Your task to perform on an android device: allow cookies in the chrome app Image 0: 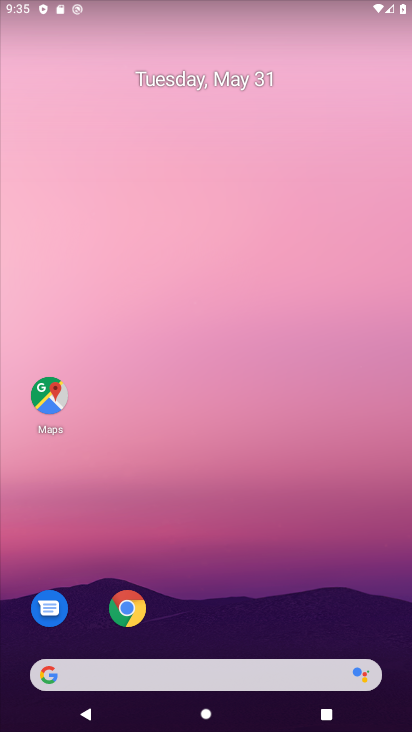
Step 0: click (118, 614)
Your task to perform on an android device: allow cookies in the chrome app Image 1: 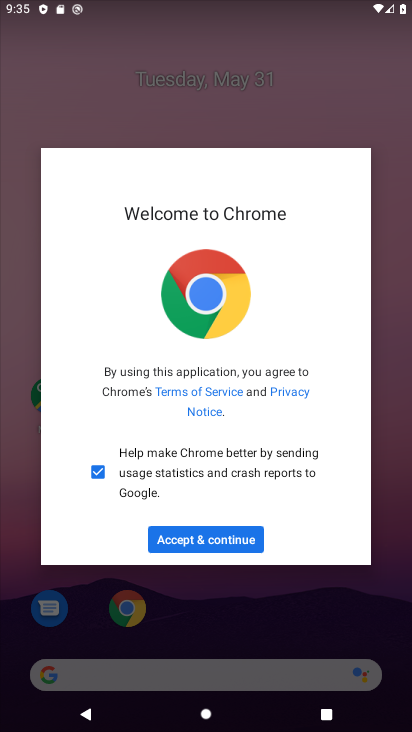
Step 1: click (197, 550)
Your task to perform on an android device: allow cookies in the chrome app Image 2: 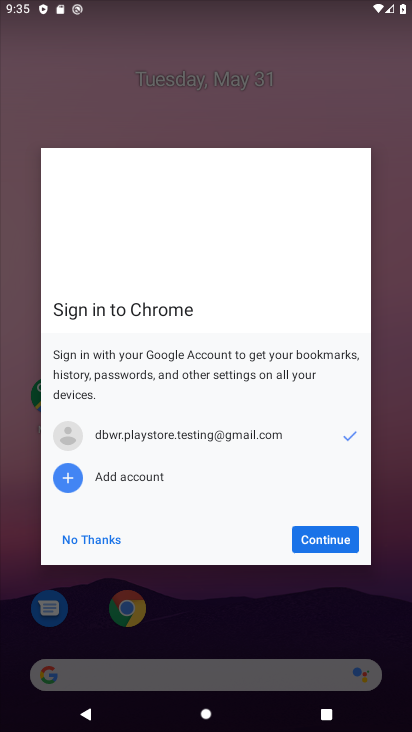
Step 2: click (300, 539)
Your task to perform on an android device: allow cookies in the chrome app Image 3: 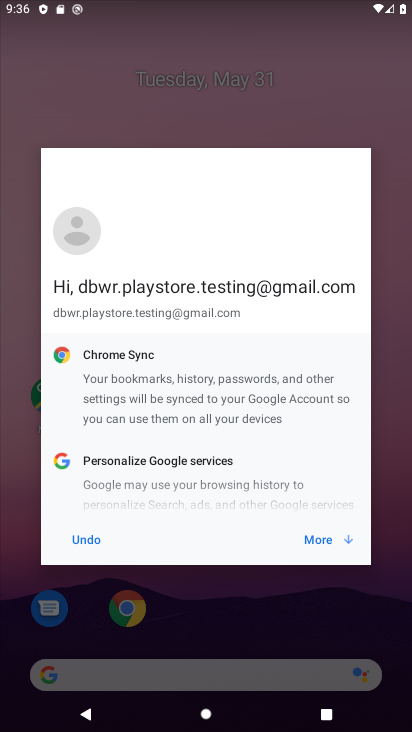
Step 3: click (328, 545)
Your task to perform on an android device: allow cookies in the chrome app Image 4: 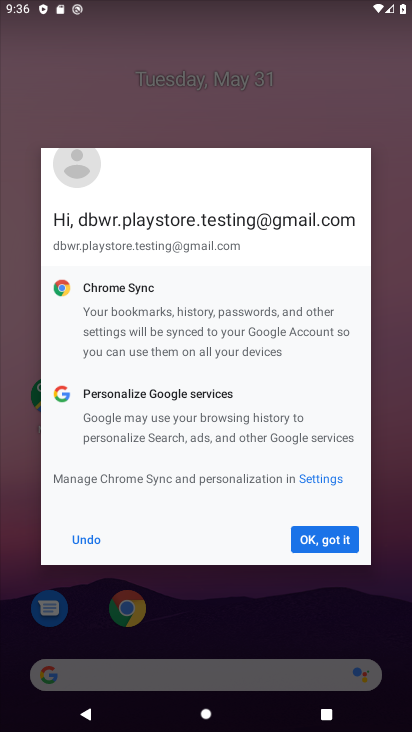
Step 4: click (328, 545)
Your task to perform on an android device: allow cookies in the chrome app Image 5: 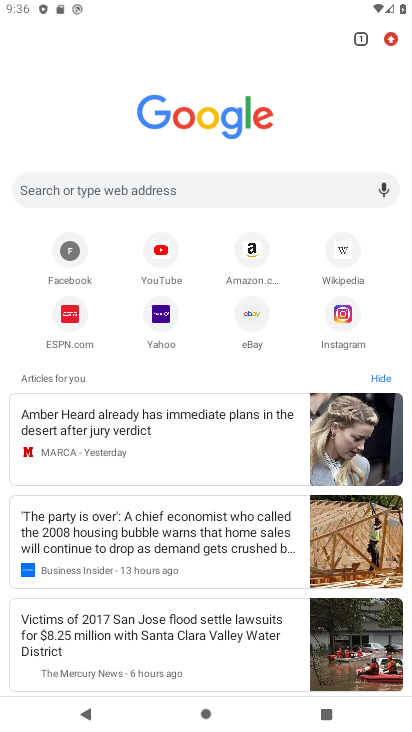
Step 5: click (389, 41)
Your task to perform on an android device: allow cookies in the chrome app Image 6: 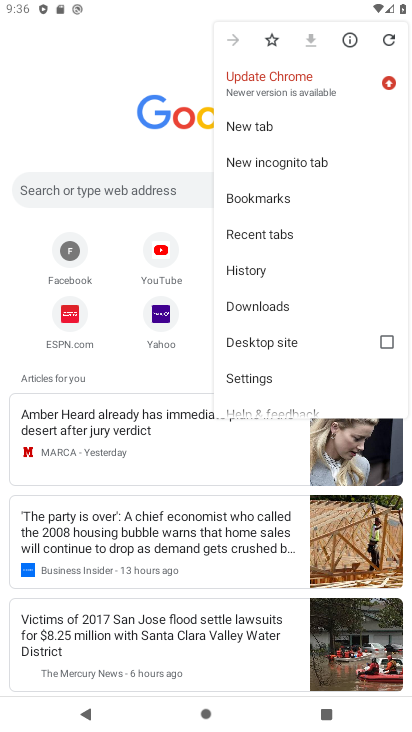
Step 6: click (255, 379)
Your task to perform on an android device: allow cookies in the chrome app Image 7: 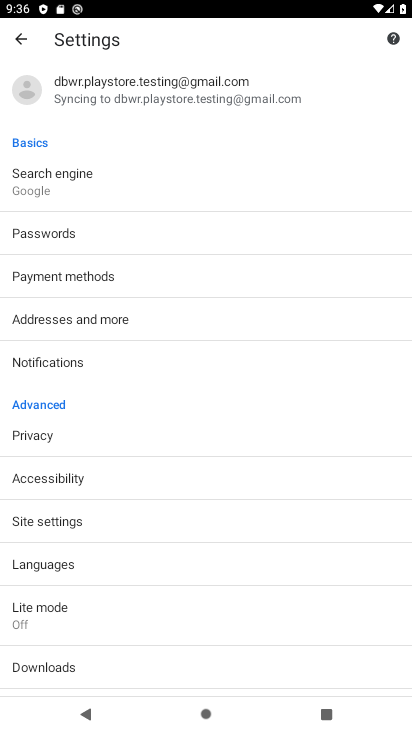
Step 7: click (59, 525)
Your task to perform on an android device: allow cookies in the chrome app Image 8: 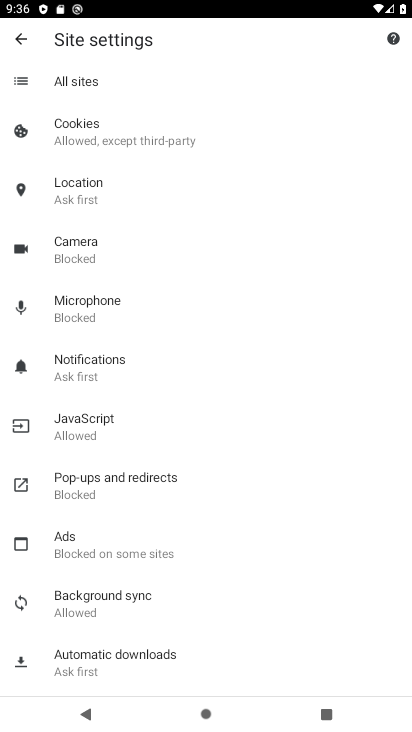
Step 8: click (102, 141)
Your task to perform on an android device: allow cookies in the chrome app Image 9: 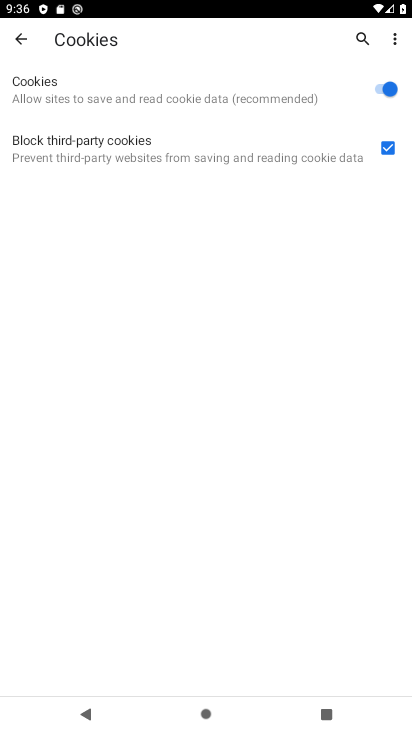
Step 9: task complete